Your task to perform on an android device: find which apps use the phone's location Image 0: 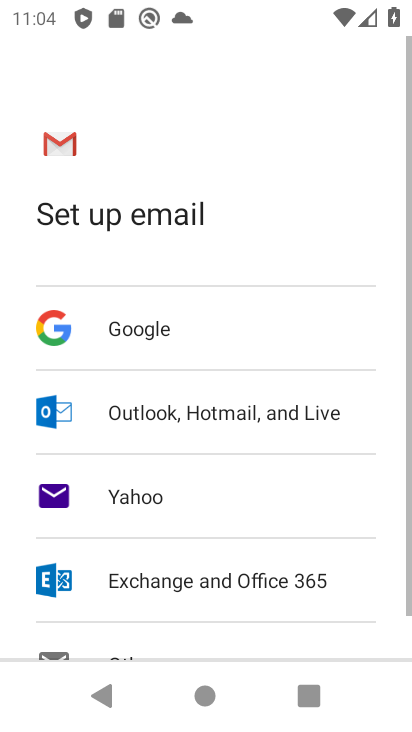
Step 0: press home button
Your task to perform on an android device: find which apps use the phone's location Image 1: 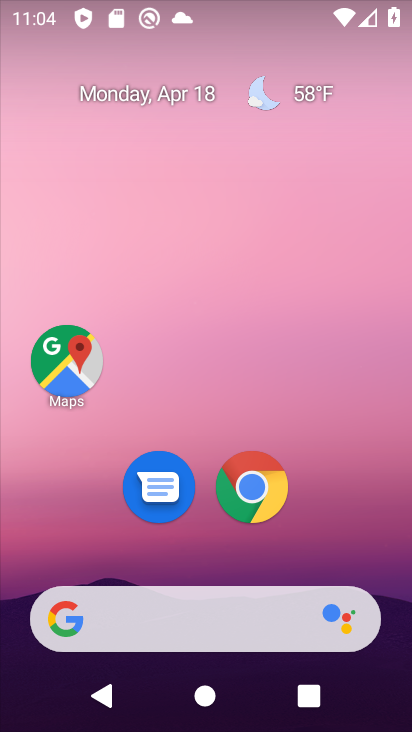
Step 1: drag from (341, 502) to (347, 190)
Your task to perform on an android device: find which apps use the phone's location Image 2: 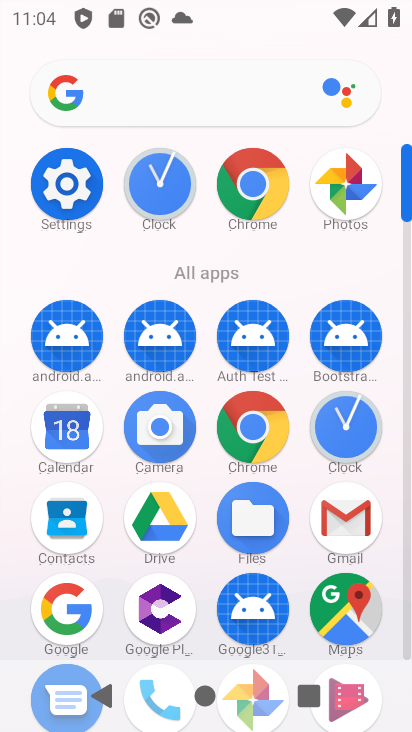
Step 2: drag from (297, 291) to (294, 134)
Your task to perform on an android device: find which apps use the phone's location Image 3: 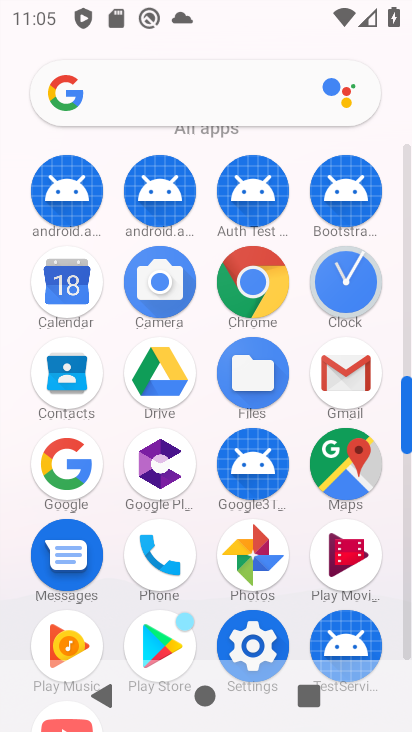
Step 3: click (252, 628)
Your task to perform on an android device: find which apps use the phone's location Image 4: 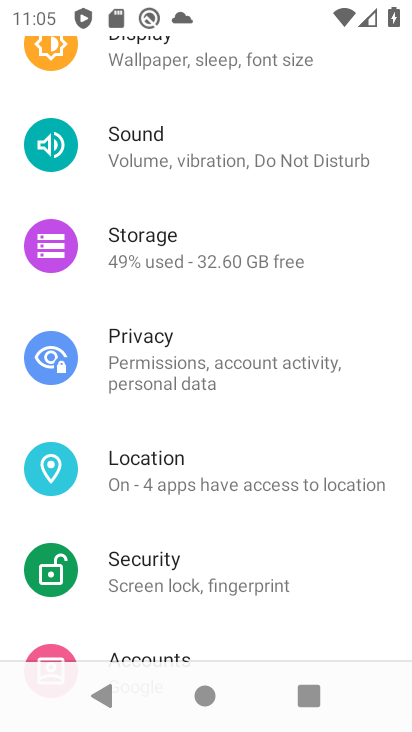
Step 4: click (226, 473)
Your task to perform on an android device: find which apps use the phone's location Image 5: 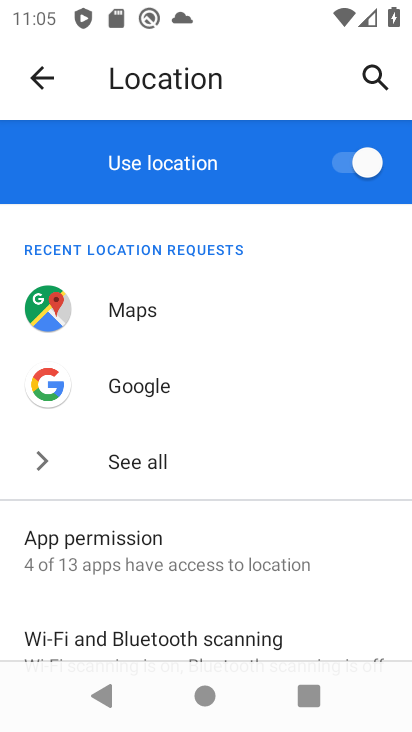
Step 5: click (157, 545)
Your task to perform on an android device: find which apps use the phone's location Image 6: 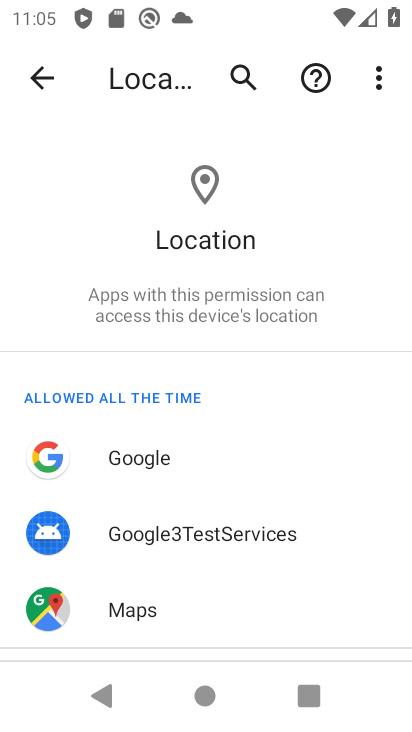
Step 6: task complete